Your task to perform on an android device: Open calendar and show me the third week of next month Image 0: 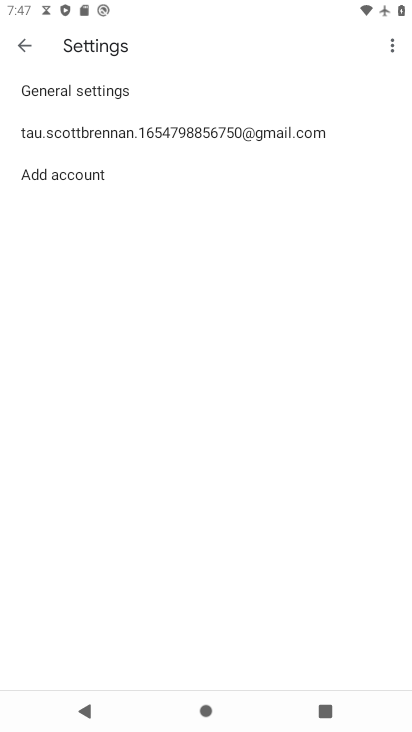
Step 0: press home button
Your task to perform on an android device: Open calendar and show me the third week of next month Image 1: 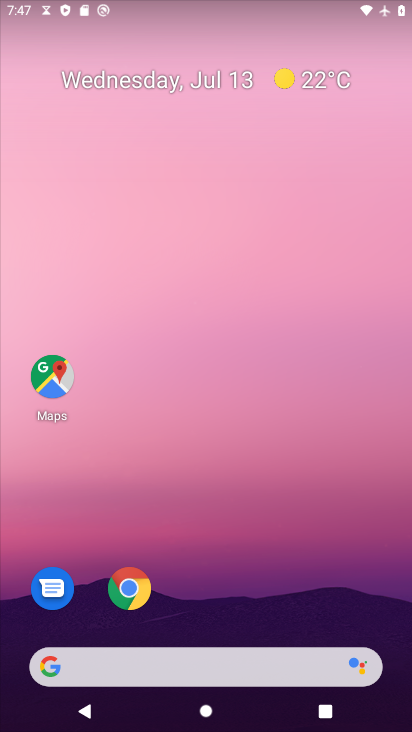
Step 1: drag from (264, 546) to (201, 217)
Your task to perform on an android device: Open calendar and show me the third week of next month Image 2: 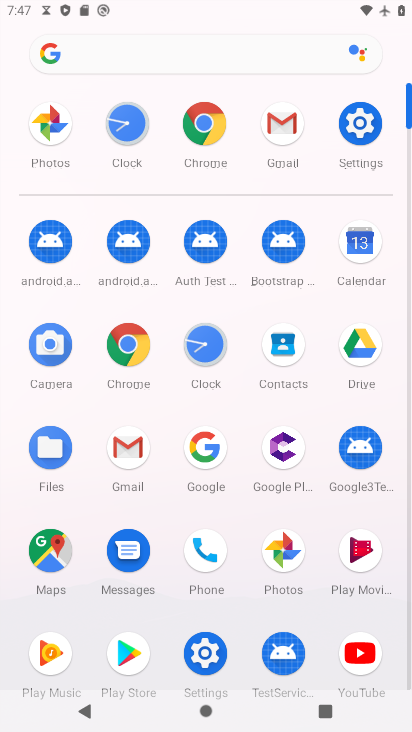
Step 2: click (369, 239)
Your task to perform on an android device: Open calendar and show me the third week of next month Image 3: 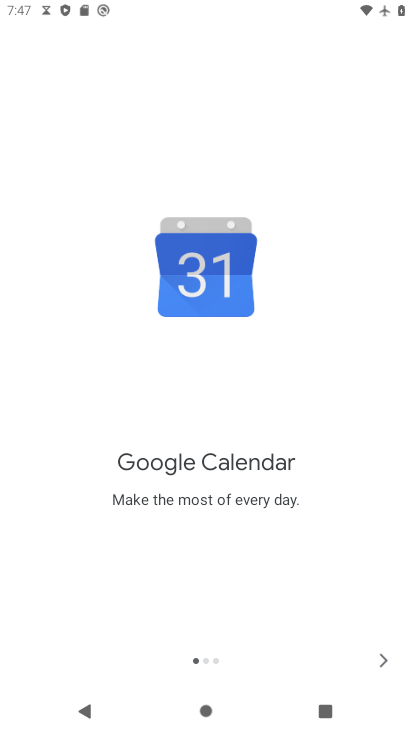
Step 3: click (363, 652)
Your task to perform on an android device: Open calendar and show me the third week of next month Image 4: 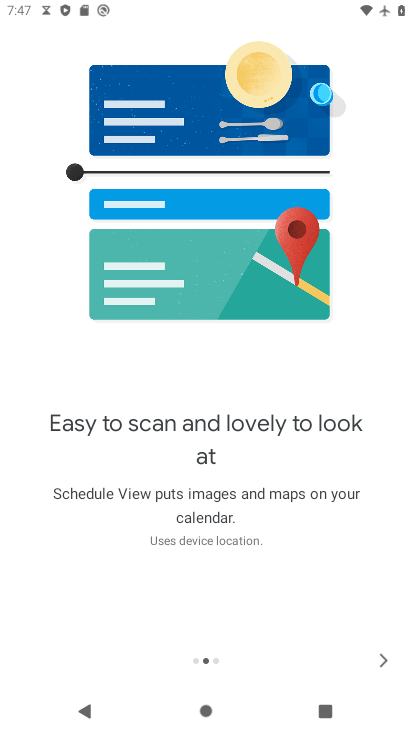
Step 4: click (388, 651)
Your task to perform on an android device: Open calendar and show me the third week of next month Image 5: 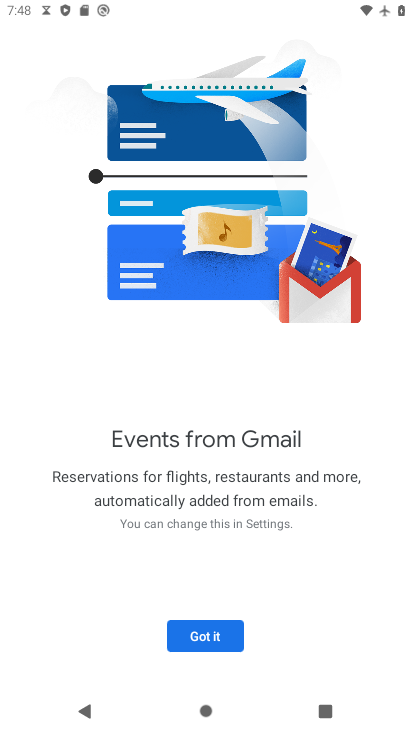
Step 5: click (212, 648)
Your task to perform on an android device: Open calendar and show me the third week of next month Image 6: 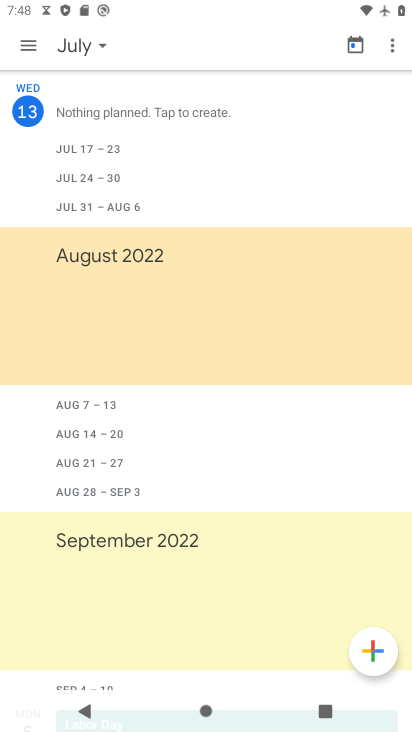
Step 6: click (33, 40)
Your task to perform on an android device: Open calendar and show me the third week of next month Image 7: 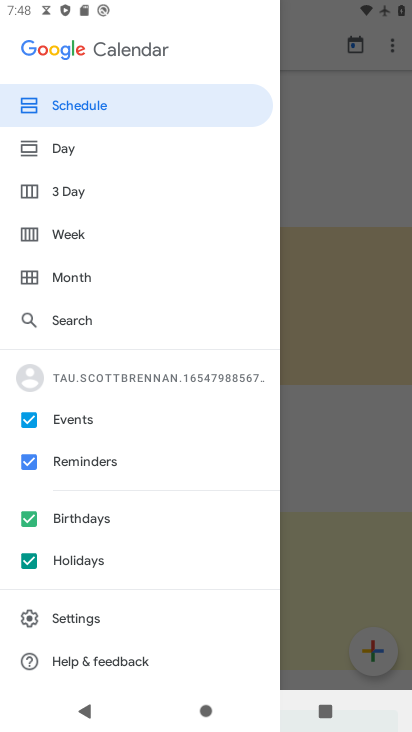
Step 7: click (70, 269)
Your task to perform on an android device: Open calendar and show me the third week of next month Image 8: 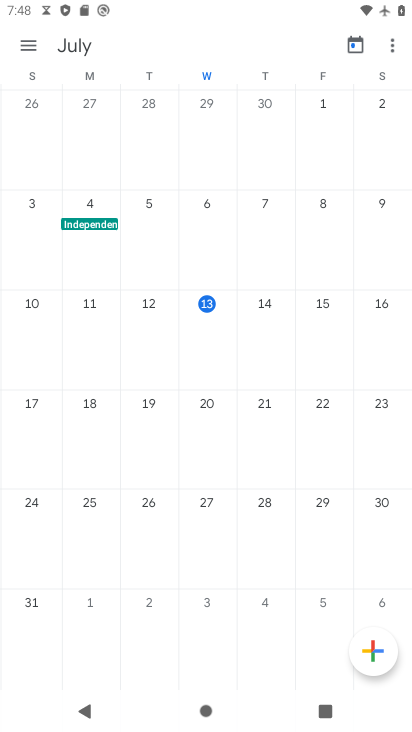
Step 8: task complete